Your task to perform on an android device: turn on priority inbox in the gmail app Image 0: 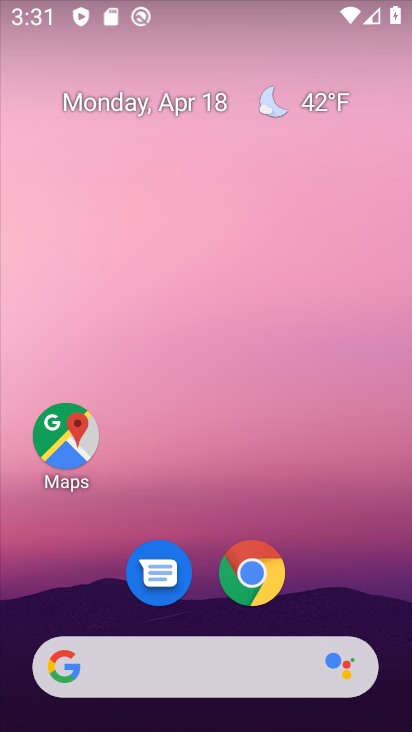
Step 0: drag from (202, 630) to (202, 245)
Your task to perform on an android device: turn on priority inbox in the gmail app Image 1: 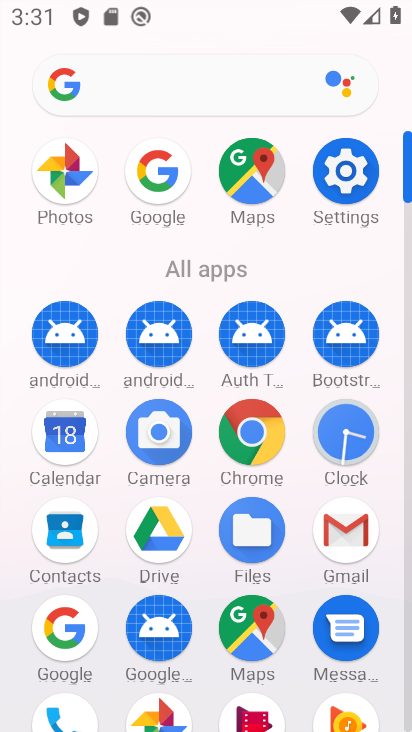
Step 1: click (351, 531)
Your task to perform on an android device: turn on priority inbox in the gmail app Image 2: 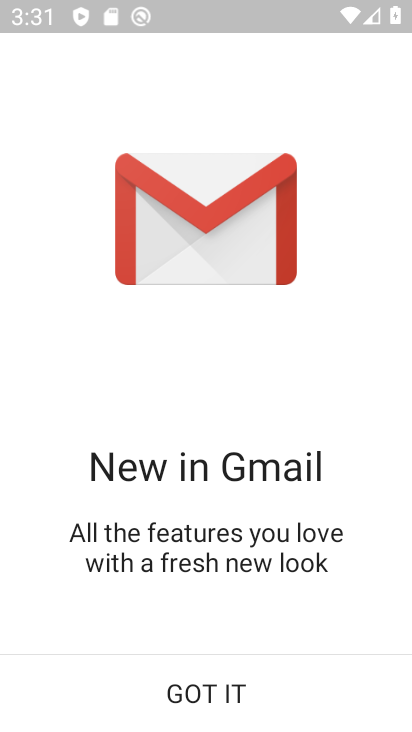
Step 2: click (220, 703)
Your task to perform on an android device: turn on priority inbox in the gmail app Image 3: 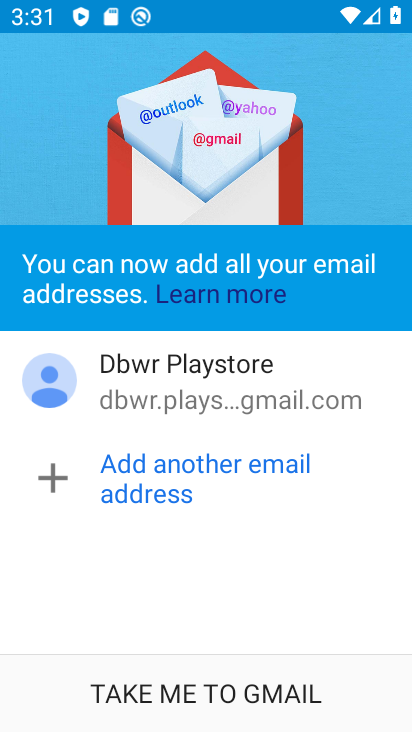
Step 3: click (220, 703)
Your task to perform on an android device: turn on priority inbox in the gmail app Image 4: 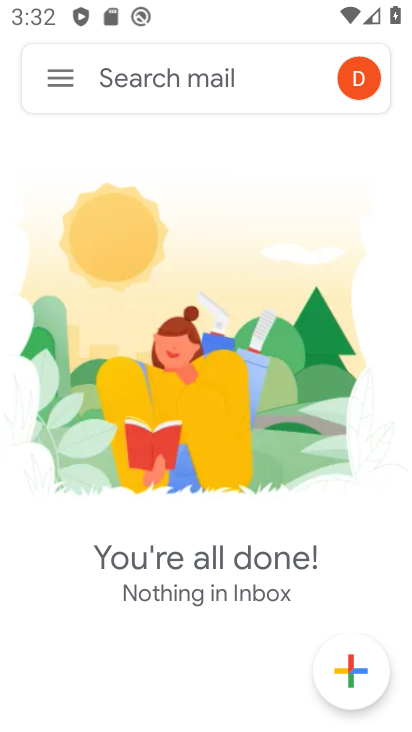
Step 4: click (66, 79)
Your task to perform on an android device: turn on priority inbox in the gmail app Image 5: 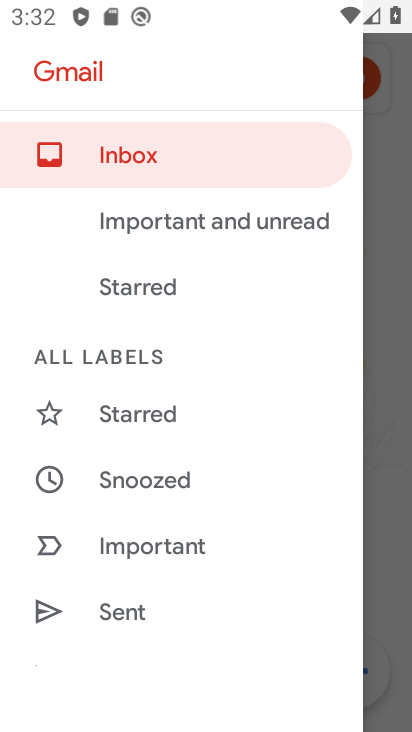
Step 5: drag from (162, 624) to (173, 319)
Your task to perform on an android device: turn on priority inbox in the gmail app Image 6: 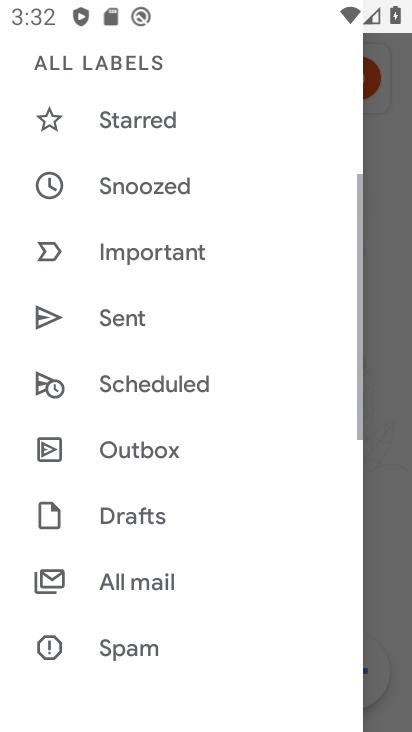
Step 6: drag from (207, 669) to (183, 348)
Your task to perform on an android device: turn on priority inbox in the gmail app Image 7: 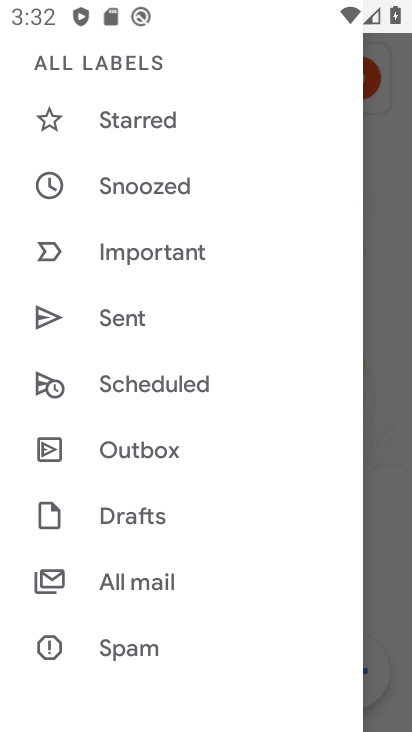
Step 7: drag from (126, 663) to (154, 290)
Your task to perform on an android device: turn on priority inbox in the gmail app Image 8: 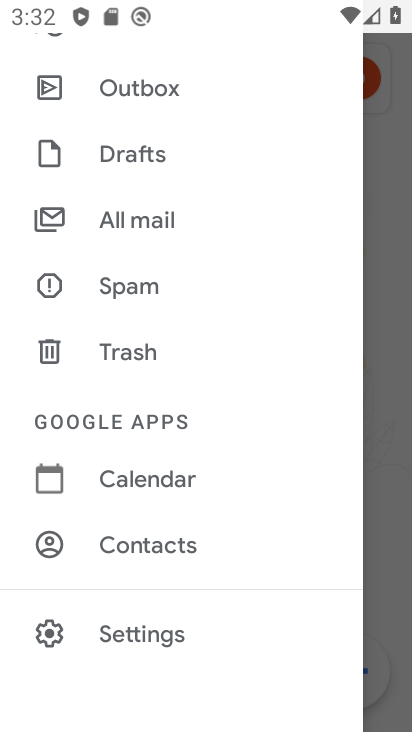
Step 8: click (139, 640)
Your task to perform on an android device: turn on priority inbox in the gmail app Image 9: 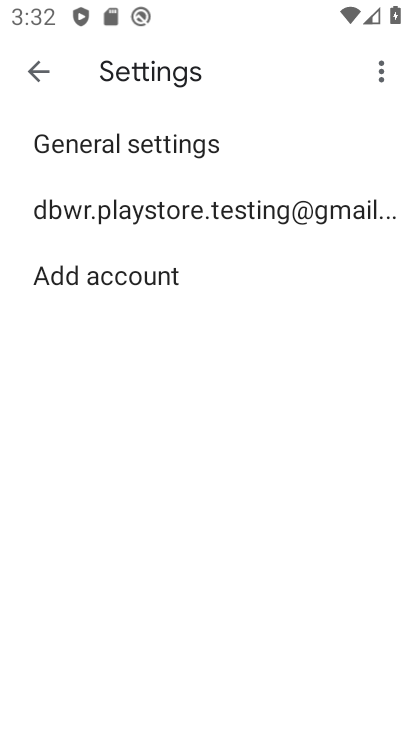
Step 9: click (83, 203)
Your task to perform on an android device: turn on priority inbox in the gmail app Image 10: 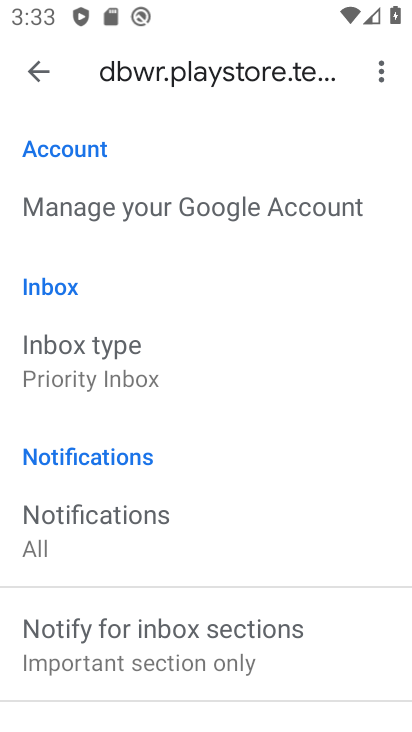
Step 10: task complete